Your task to perform on an android device: Go to Wikipedia Image 0: 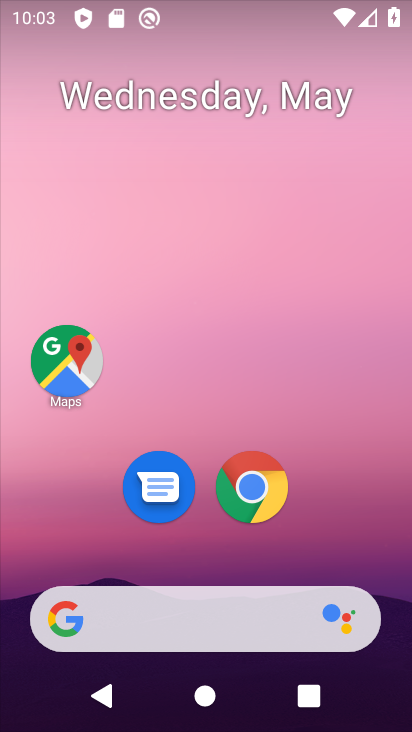
Step 0: drag from (372, 552) to (311, 44)
Your task to perform on an android device: Go to Wikipedia Image 1: 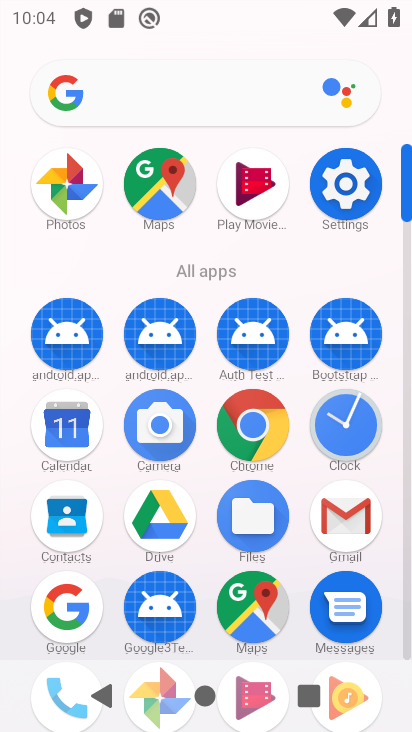
Step 1: drag from (2, 576) to (10, 198)
Your task to perform on an android device: Go to Wikipedia Image 2: 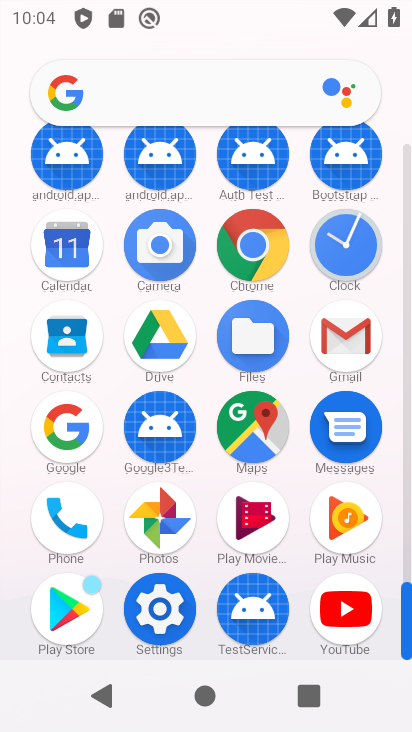
Step 2: click (255, 235)
Your task to perform on an android device: Go to Wikipedia Image 3: 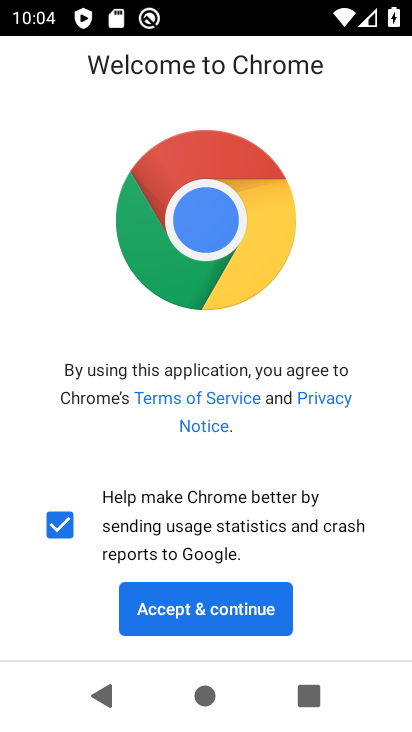
Step 3: click (238, 609)
Your task to perform on an android device: Go to Wikipedia Image 4: 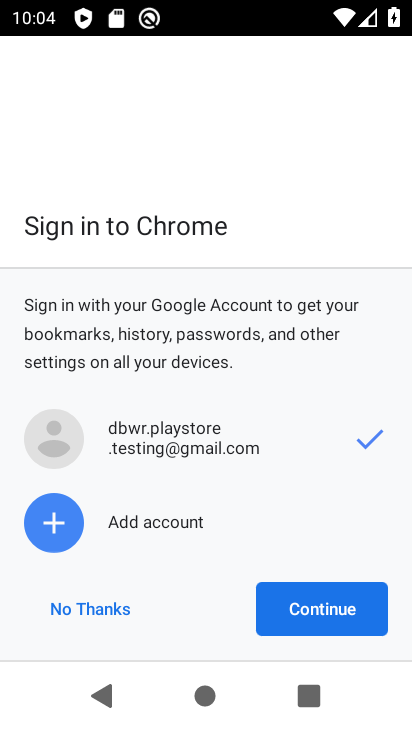
Step 4: click (302, 597)
Your task to perform on an android device: Go to Wikipedia Image 5: 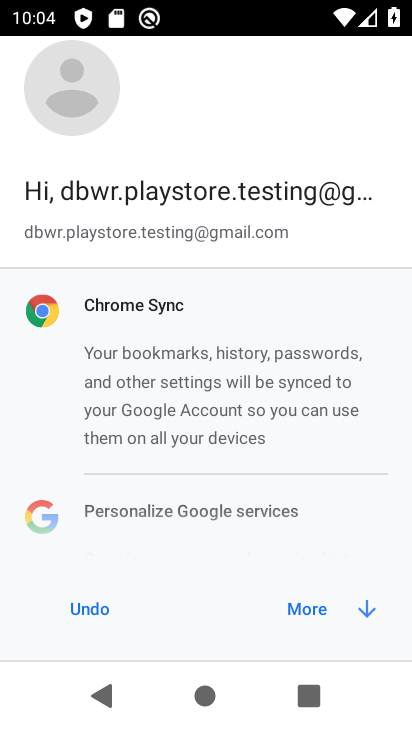
Step 5: click (303, 609)
Your task to perform on an android device: Go to Wikipedia Image 6: 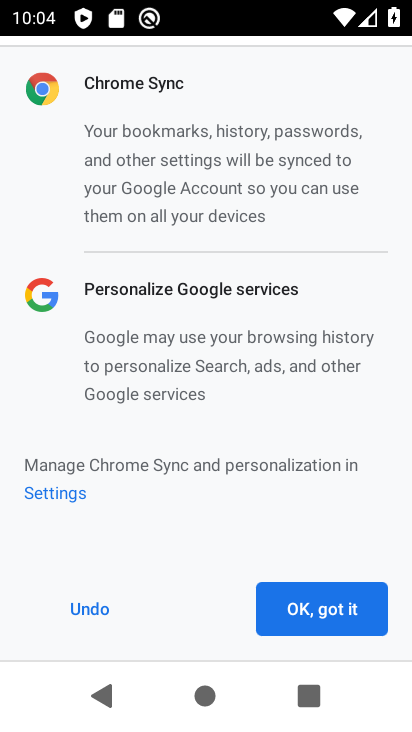
Step 6: click (304, 612)
Your task to perform on an android device: Go to Wikipedia Image 7: 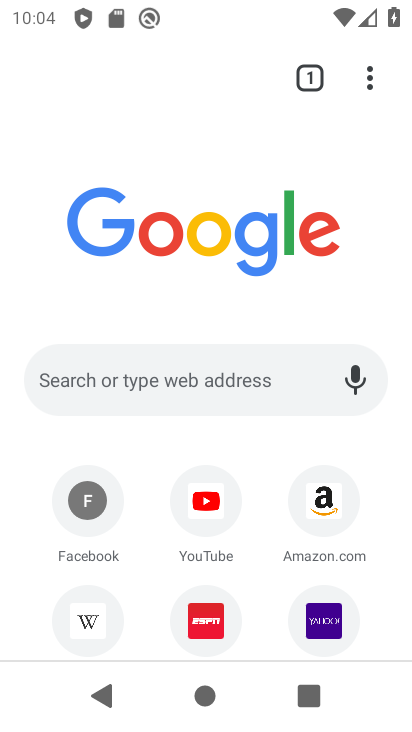
Step 7: click (147, 375)
Your task to perform on an android device: Go to Wikipedia Image 8: 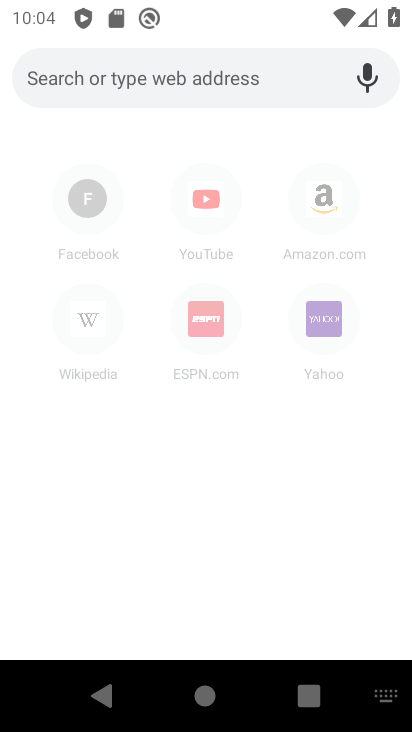
Step 8: click (97, 310)
Your task to perform on an android device: Go to Wikipedia Image 9: 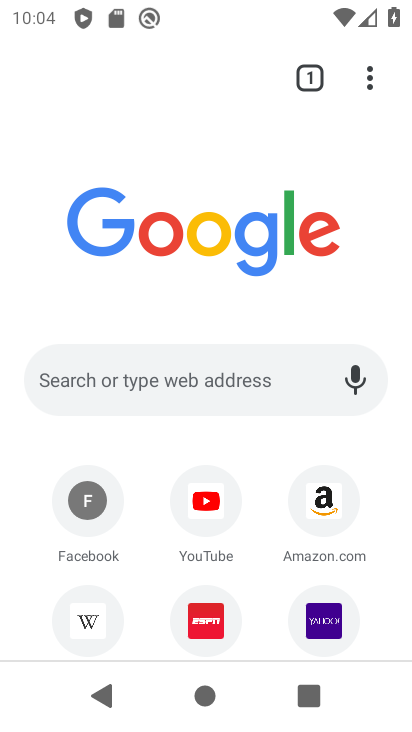
Step 9: click (86, 628)
Your task to perform on an android device: Go to Wikipedia Image 10: 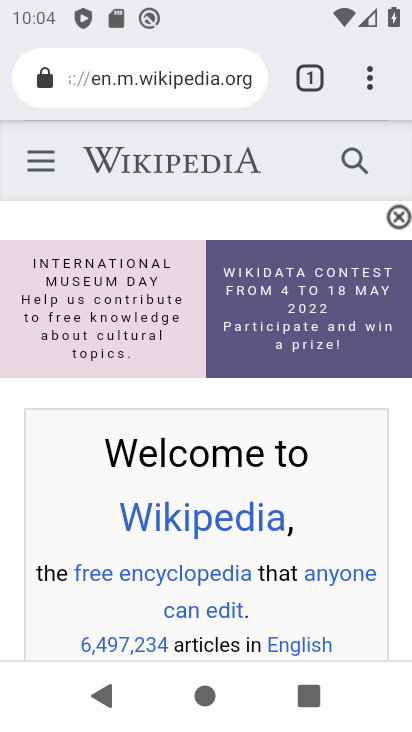
Step 10: task complete